Your task to perform on an android device: toggle javascript in the chrome app Image 0: 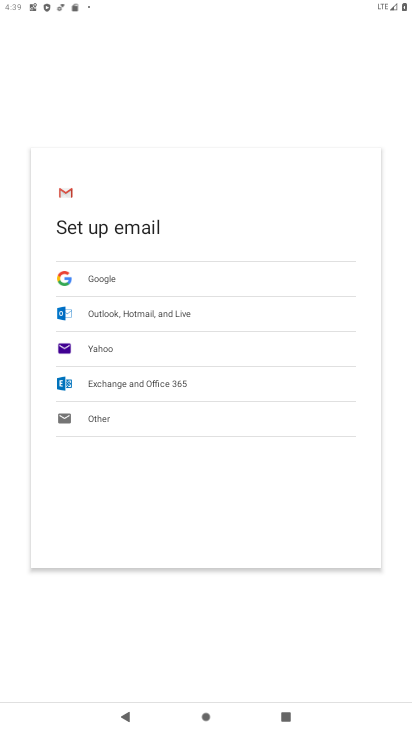
Step 0: press home button
Your task to perform on an android device: toggle javascript in the chrome app Image 1: 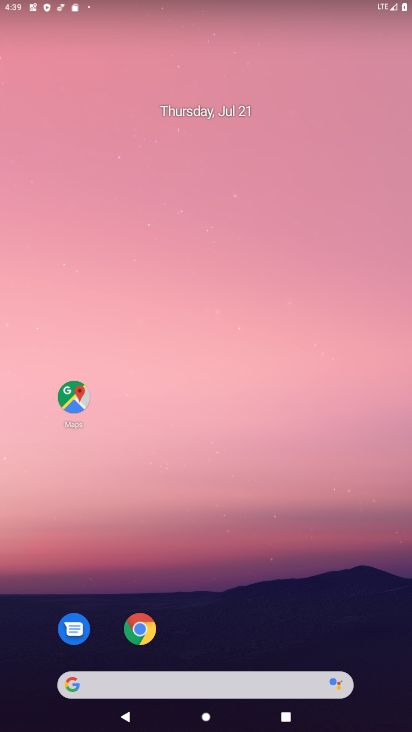
Step 1: click (138, 623)
Your task to perform on an android device: toggle javascript in the chrome app Image 2: 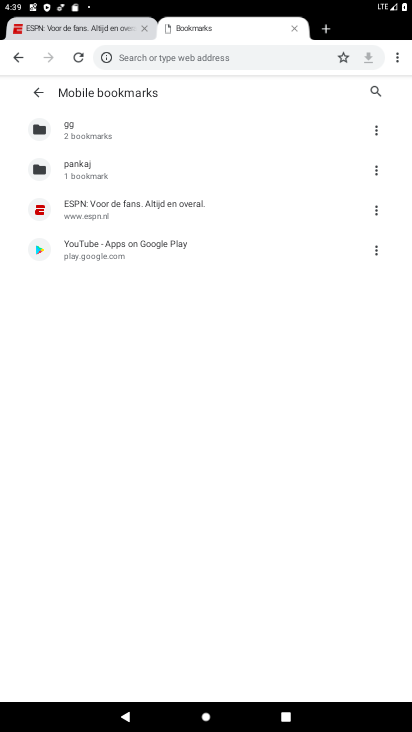
Step 2: click (393, 55)
Your task to perform on an android device: toggle javascript in the chrome app Image 3: 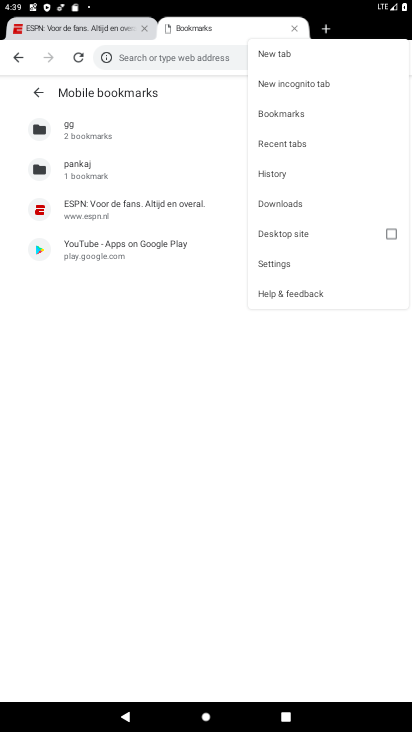
Step 3: click (292, 263)
Your task to perform on an android device: toggle javascript in the chrome app Image 4: 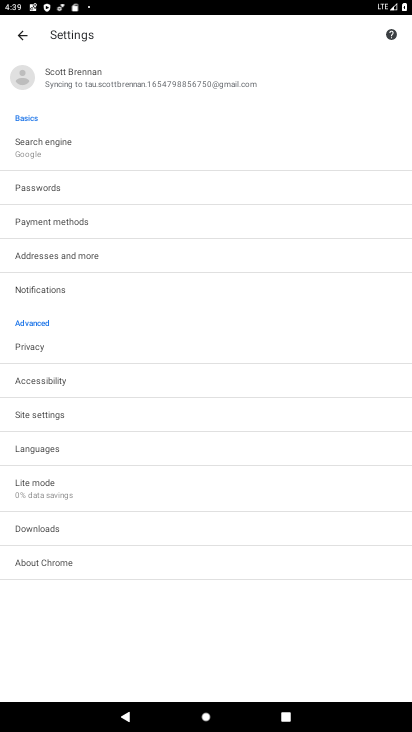
Step 4: click (70, 414)
Your task to perform on an android device: toggle javascript in the chrome app Image 5: 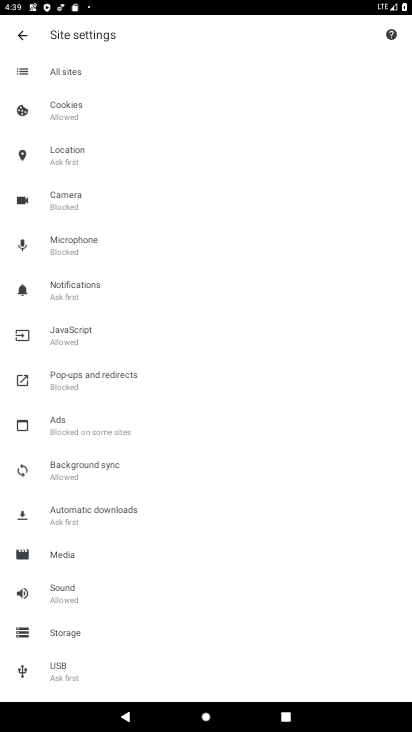
Step 5: click (91, 336)
Your task to perform on an android device: toggle javascript in the chrome app Image 6: 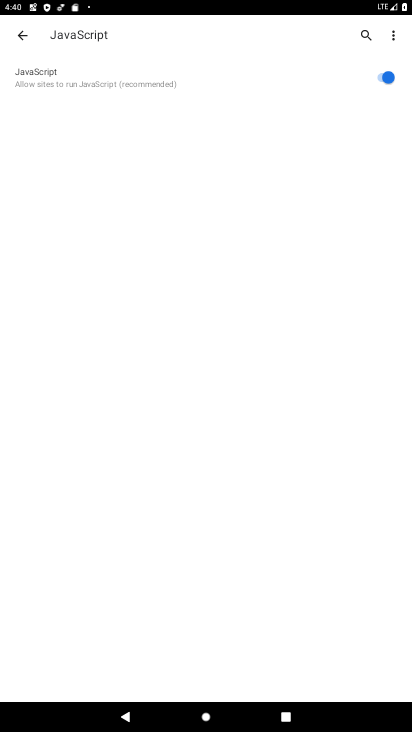
Step 6: click (383, 71)
Your task to perform on an android device: toggle javascript in the chrome app Image 7: 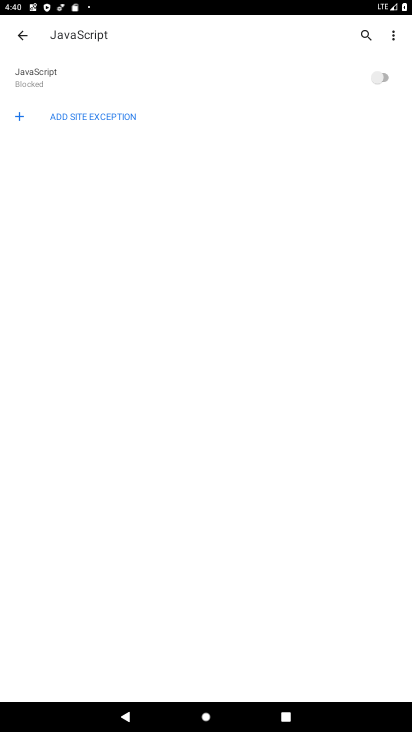
Step 7: task complete